Your task to perform on an android device: change keyboard looks Image 0: 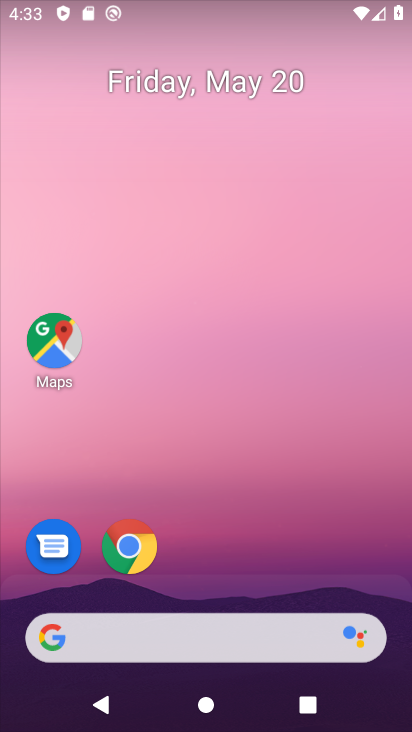
Step 0: drag from (281, 551) to (212, 104)
Your task to perform on an android device: change keyboard looks Image 1: 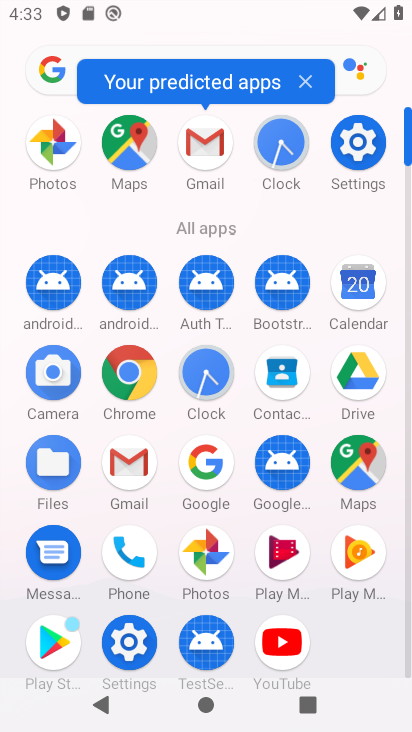
Step 1: click (359, 144)
Your task to perform on an android device: change keyboard looks Image 2: 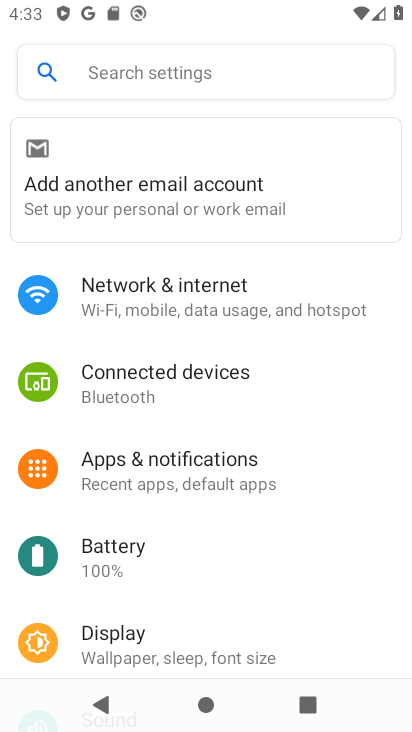
Step 2: drag from (183, 562) to (171, 332)
Your task to perform on an android device: change keyboard looks Image 3: 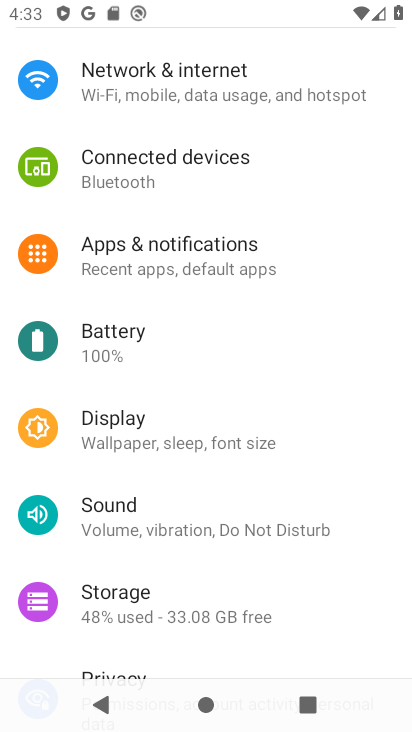
Step 3: drag from (180, 575) to (162, 392)
Your task to perform on an android device: change keyboard looks Image 4: 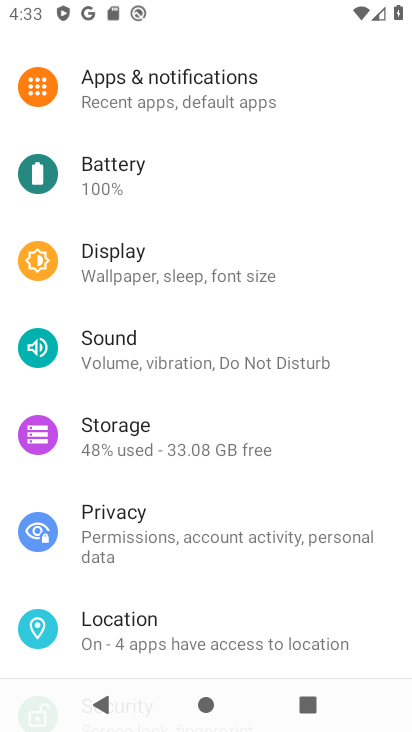
Step 4: drag from (172, 575) to (215, 439)
Your task to perform on an android device: change keyboard looks Image 5: 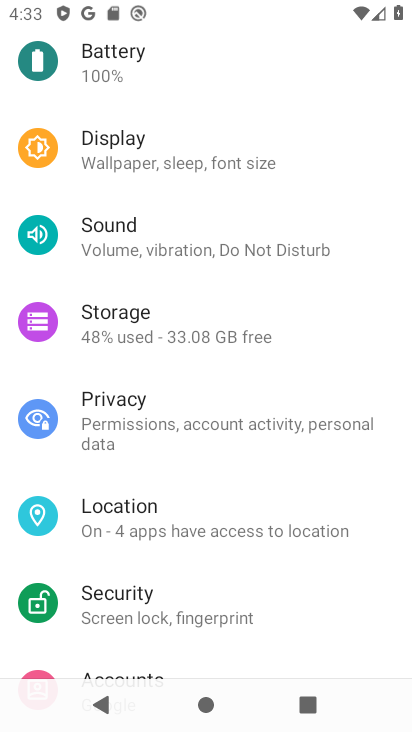
Step 5: drag from (163, 569) to (164, 457)
Your task to perform on an android device: change keyboard looks Image 6: 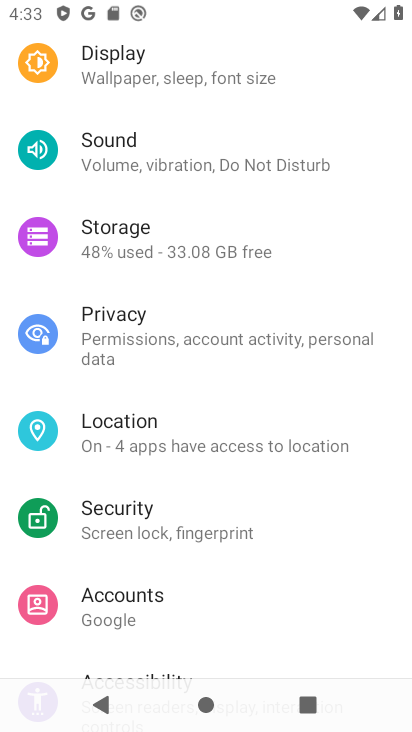
Step 6: drag from (154, 628) to (176, 506)
Your task to perform on an android device: change keyboard looks Image 7: 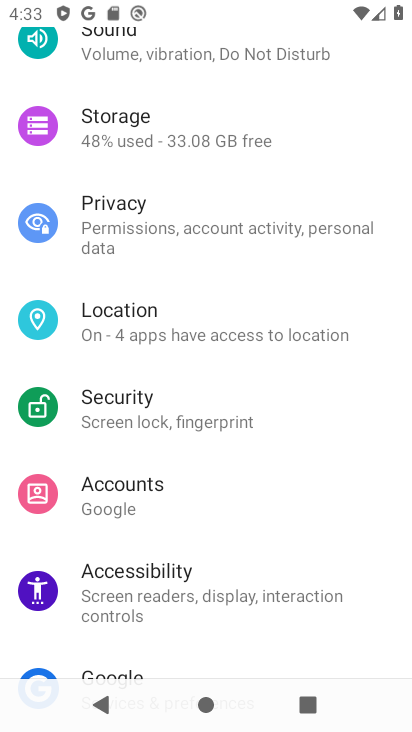
Step 7: drag from (143, 645) to (180, 492)
Your task to perform on an android device: change keyboard looks Image 8: 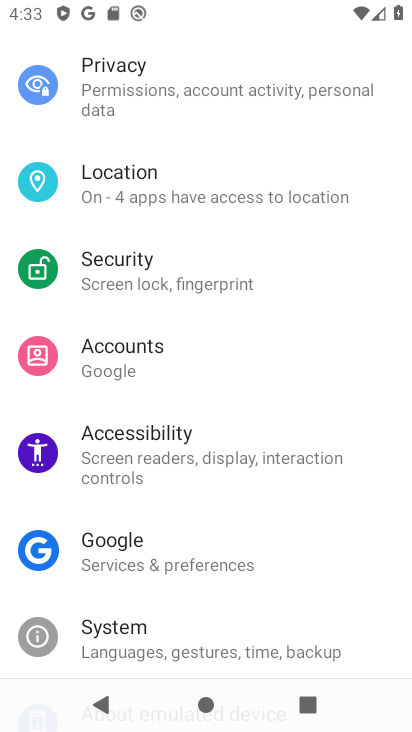
Step 8: click (120, 631)
Your task to perform on an android device: change keyboard looks Image 9: 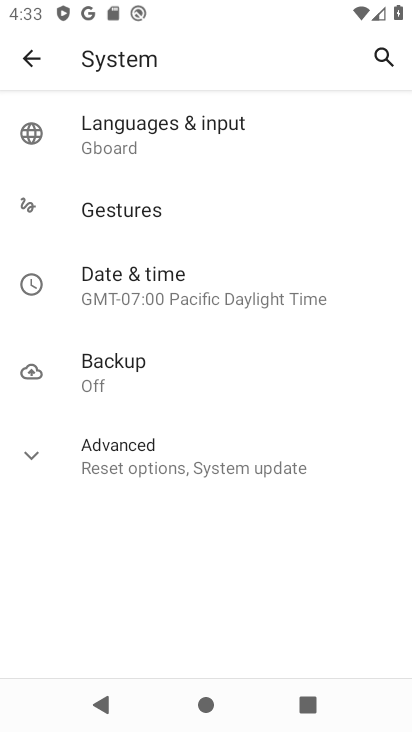
Step 9: click (115, 142)
Your task to perform on an android device: change keyboard looks Image 10: 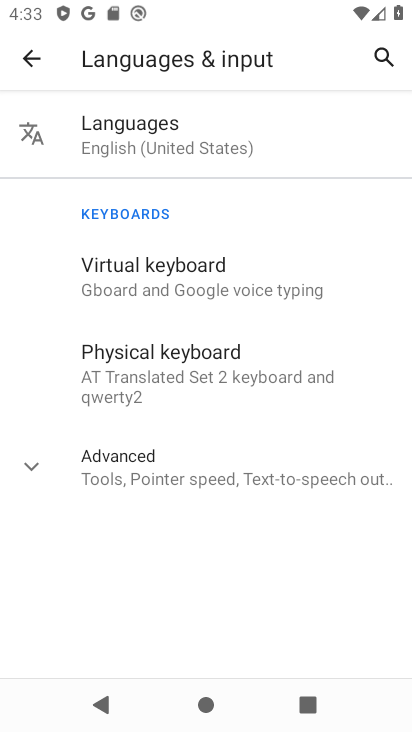
Step 10: click (149, 273)
Your task to perform on an android device: change keyboard looks Image 11: 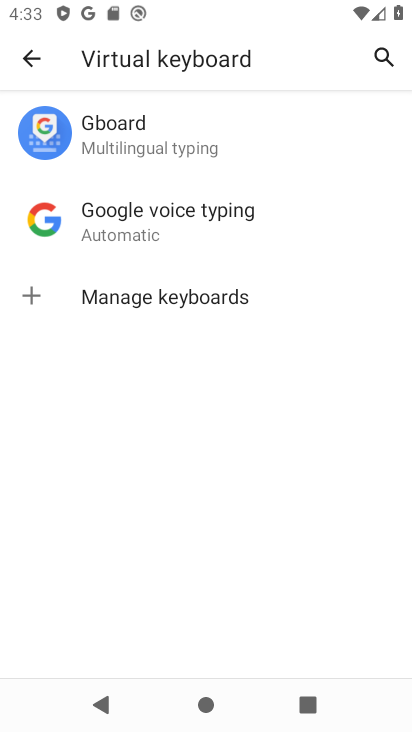
Step 11: click (130, 138)
Your task to perform on an android device: change keyboard looks Image 12: 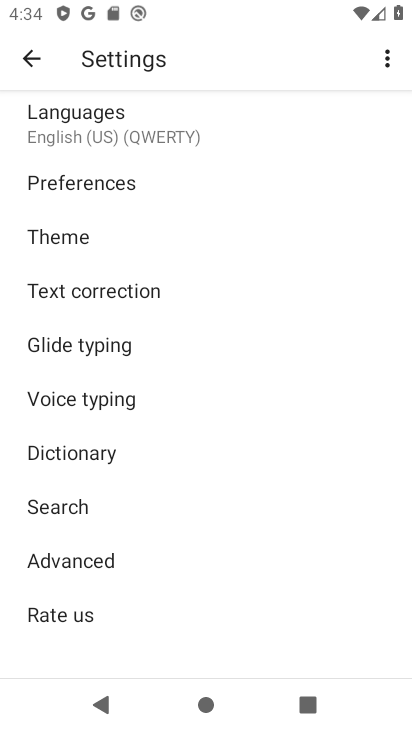
Step 12: click (68, 236)
Your task to perform on an android device: change keyboard looks Image 13: 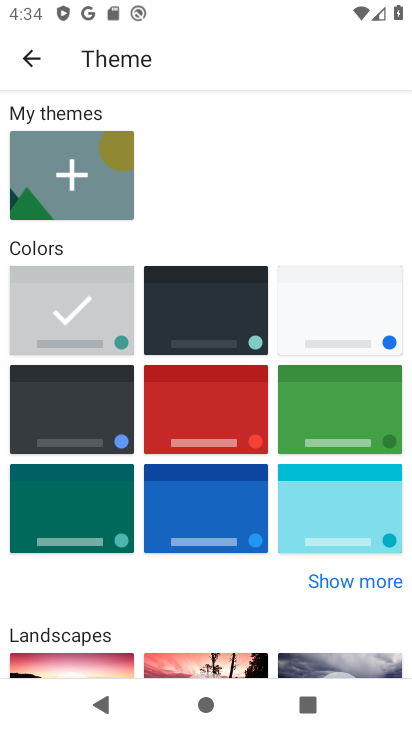
Step 13: click (189, 401)
Your task to perform on an android device: change keyboard looks Image 14: 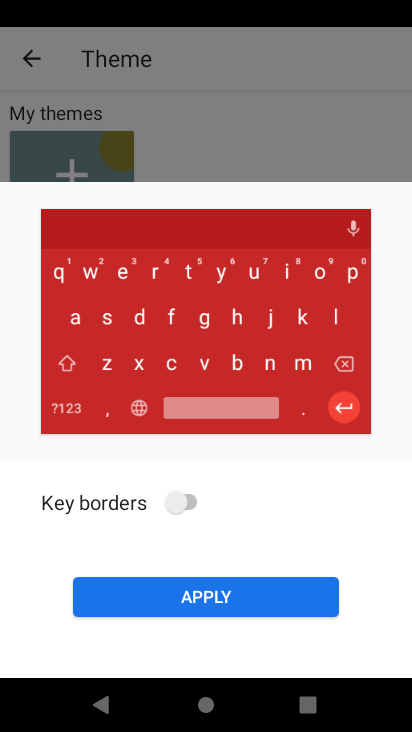
Step 14: click (182, 499)
Your task to perform on an android device: change keyboard looks Image 15: 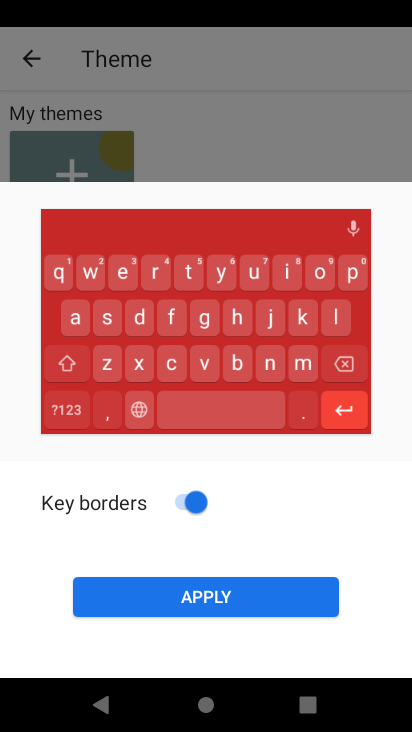
Step 15: click (196, 607)
Your task to perform on an android device: change keyboard looks Image 16: 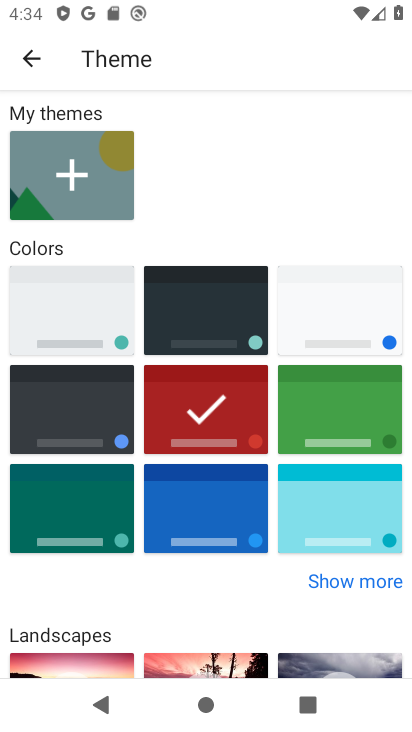
Step 16: task complete